Your task to perform on an android device: Open Chrome and go to the settings page Image 0: 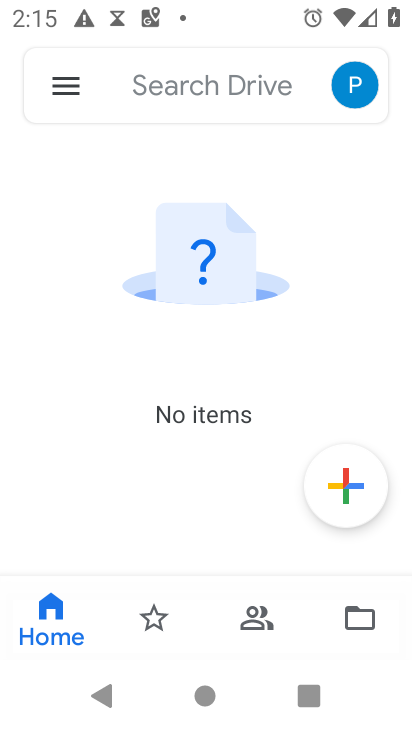
Step 0: press back button
Your task to perform on an android device: Open Chrome and go to the settings page Image 1: 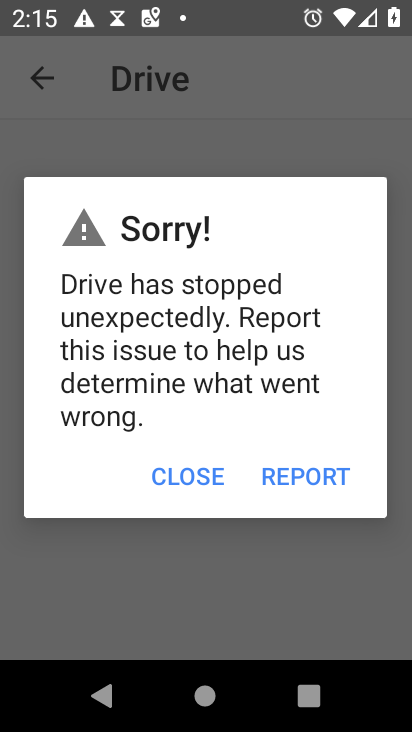
Step 1: press home button
Your task to perform on an android device: Open Chrome and go to the settings page Image 2: 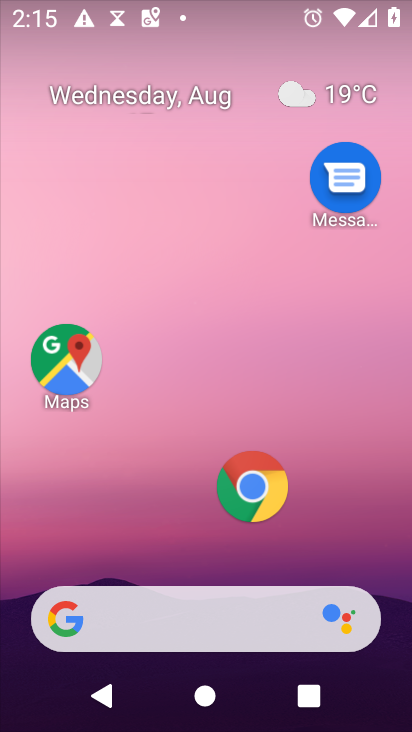
Step 2: click (253, 485)
Your task to perform on an android device: Open Chrome and go to the settings page Image 3: 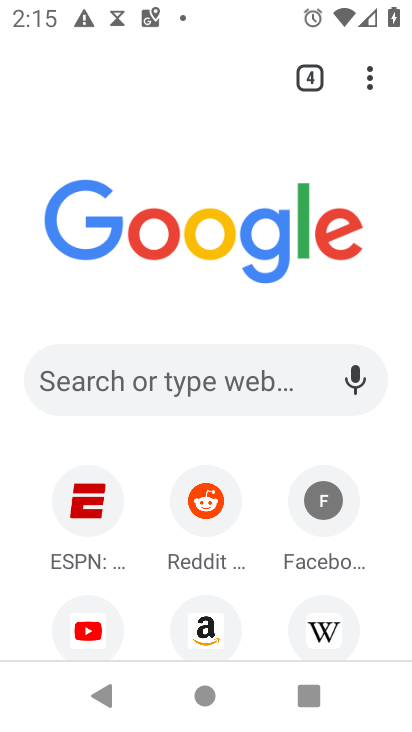
Step 3: task complete